Your task to perform on an android device: toggle data saver in the chrome app Image 0: 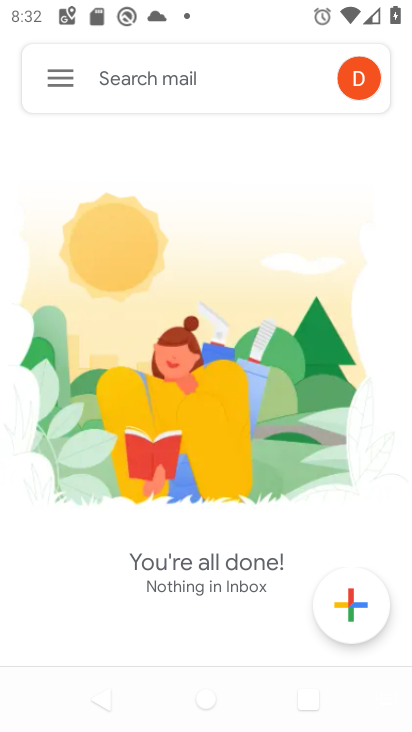
Step 0: press home button
Your task to perform on an android device: toggle data saver in the chrome app Image 1: 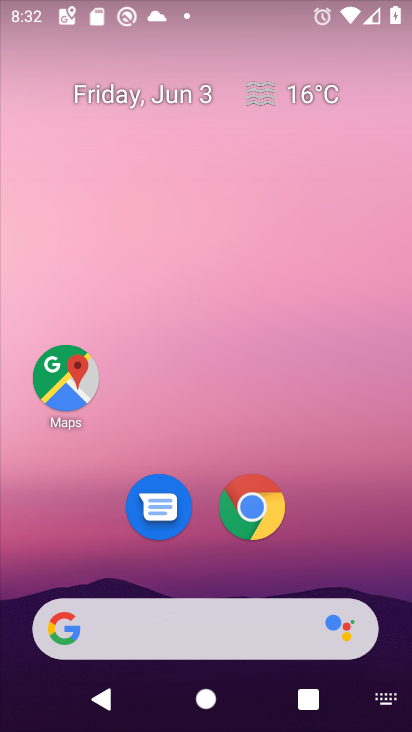
Step 1: click (261, 486)
Your task to perform on an android device: toggle data saver in the chrome app Image 2: 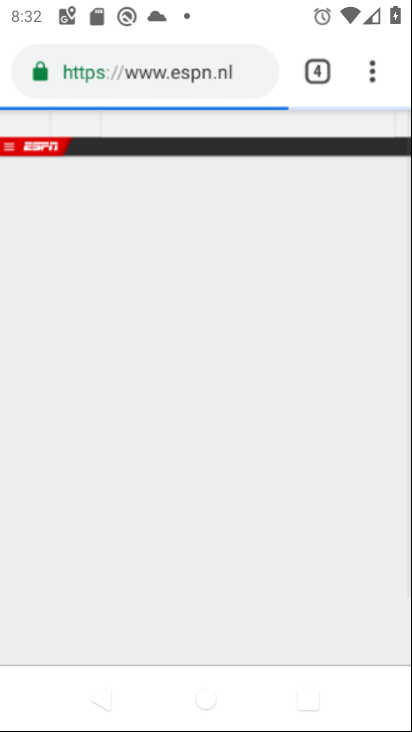
Step 2: click (379, 71)
Your task to perform on an android device: toggle data saver in the chrome app Image 3: 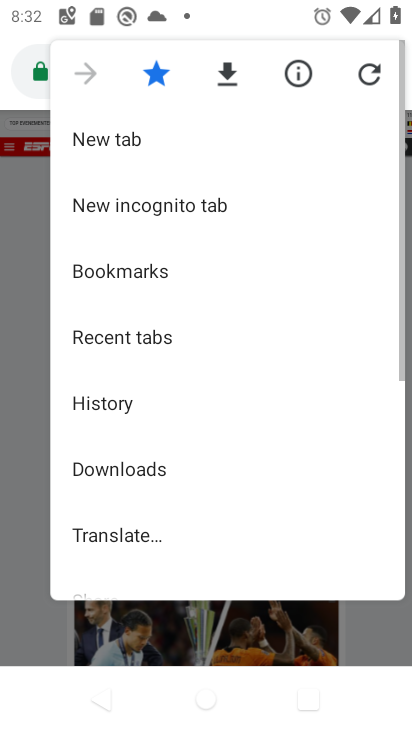
Step 3: drag from (256, 519) to (187, 9)
Your task to perform on an android device: toggle data saver in the chrome app Image 4: 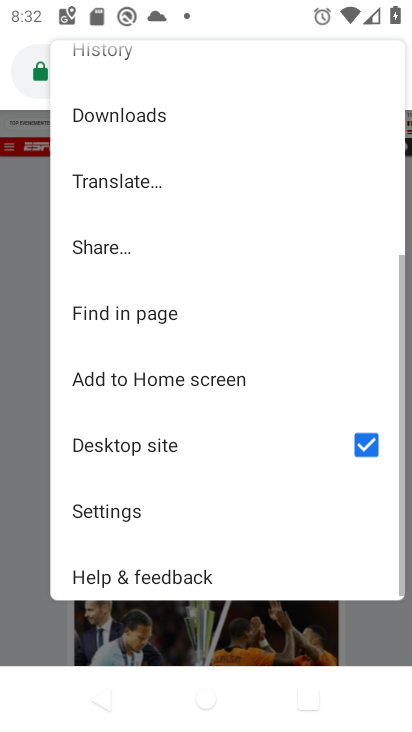
Step 4: click (167, 501)
Your task to perform on an android device: toggle data saver in the chrome app Image 5: 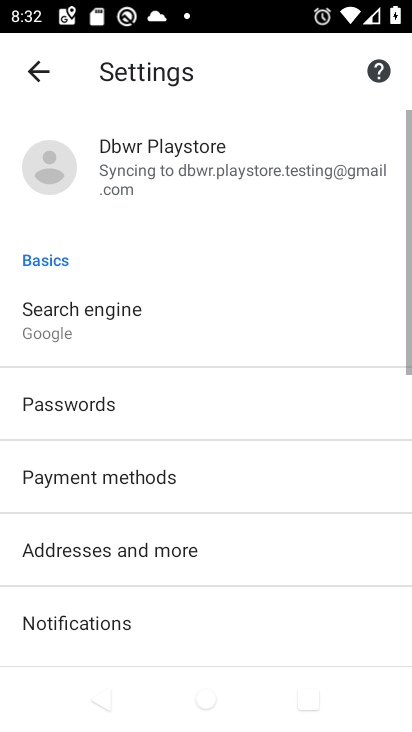
Step 5: drag from (297, 509) to (249, 34)
Your task to perform on an android device: toggle data saver in the chrome app Image 6: 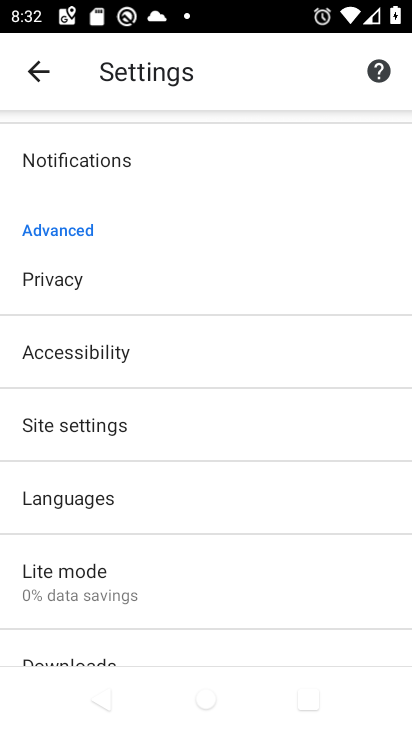
Step 6: click (140, 584)
Your task to perform on an android device: toggle data saver in the chrome app Image 7: 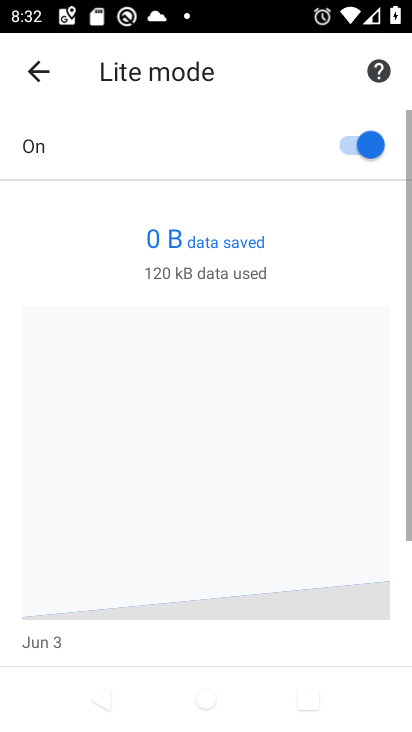
Step 7: click (376, 144)
Your task to perform on an android device: toggle data saver in the chrome app Image 8: 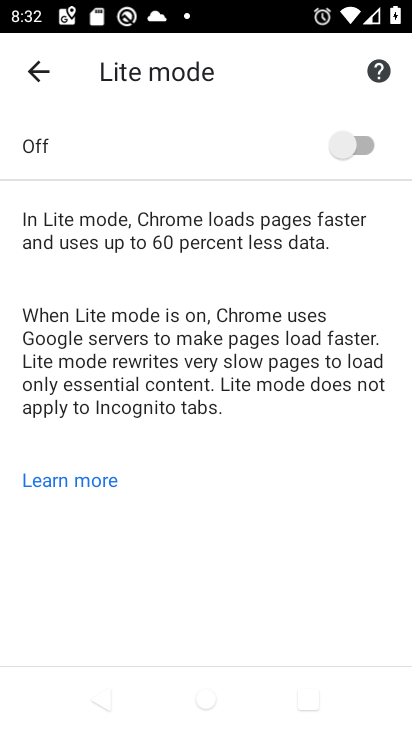
Step 8: task complete